Your task to perform on an android device: open the mobile data screen to see how much data has been used Image 0: 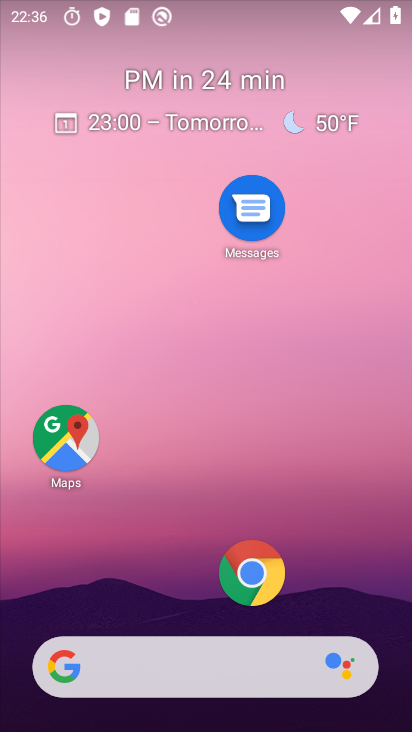
Step 0: drag from (208, 599) to (174, 212)
Your task to perform on an android device: open the mobile data screen to see how much data has been used Image 1: 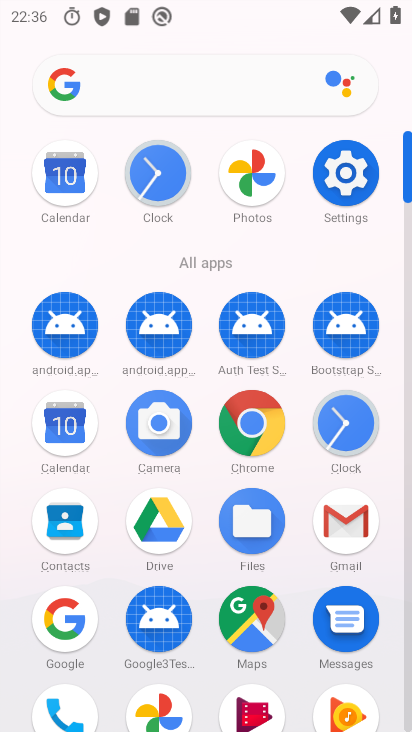
Step 1: click (358, 172)
Your task to perform on an android device: open the mobile data screen to see how much data has been used Image 2: 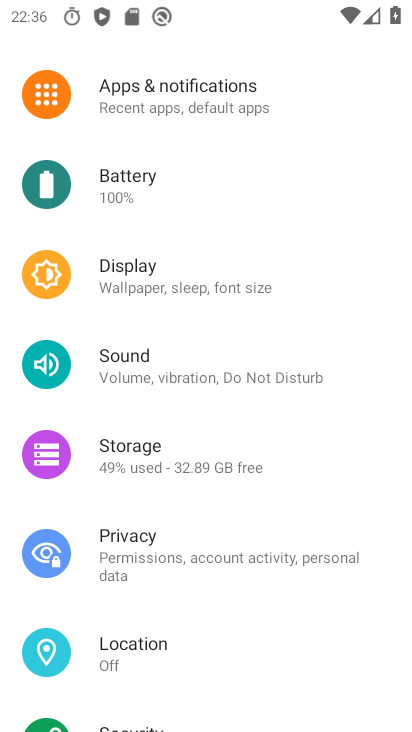
Step 2: drag from (200, 185) to (294, 665)
Your task to perform on an android device: open the mobile data screen to see how much data has been used Image 3: 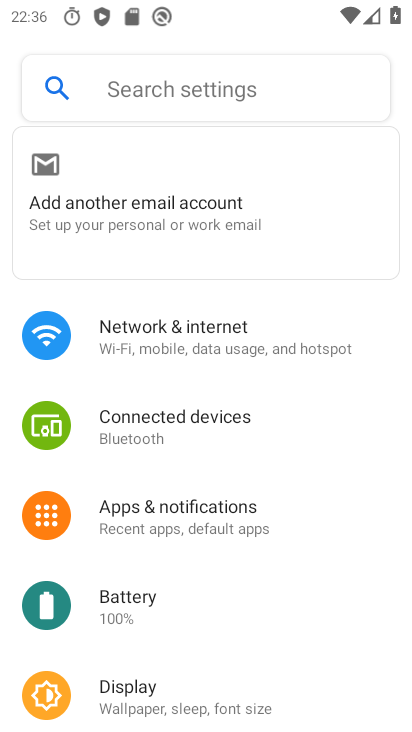
Step 3: click (215, 334)
Your task to perform on an android device: open the mobile data screen to see how much data has been used Image 4: 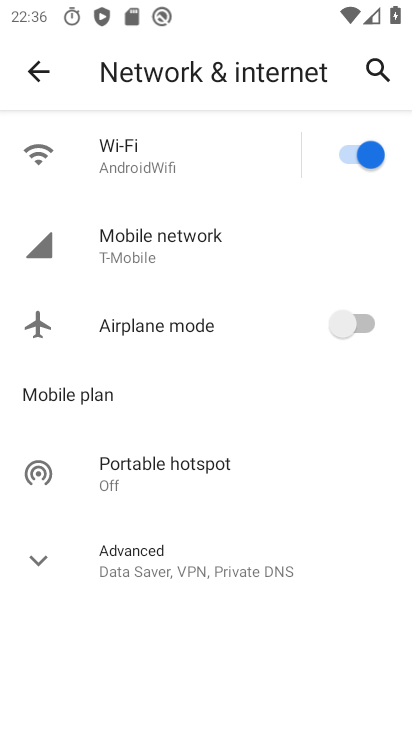
Step 4: click (182, 247)
Your task to perform on an android device: open the mobile data screen to see how much data has been used Image 5: 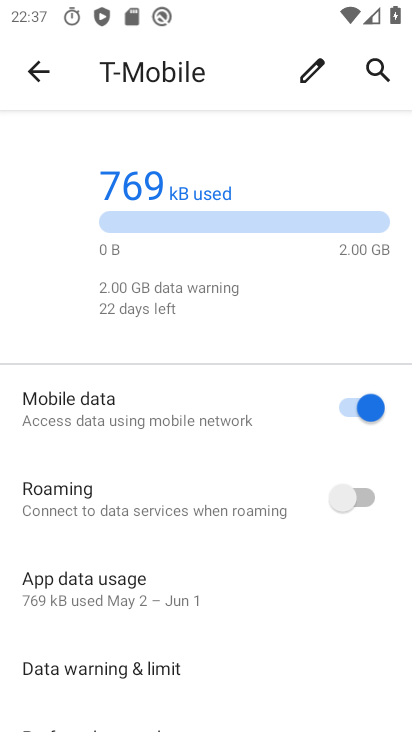
Step 5: task complete